Your task to perform on an android device: Check the weather Image 0: 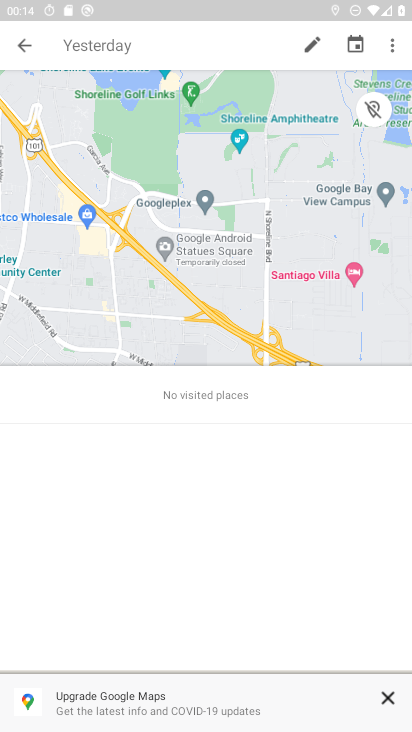
Step 0: press home button
Your task to perform on an android device: Check the weather Image 1: 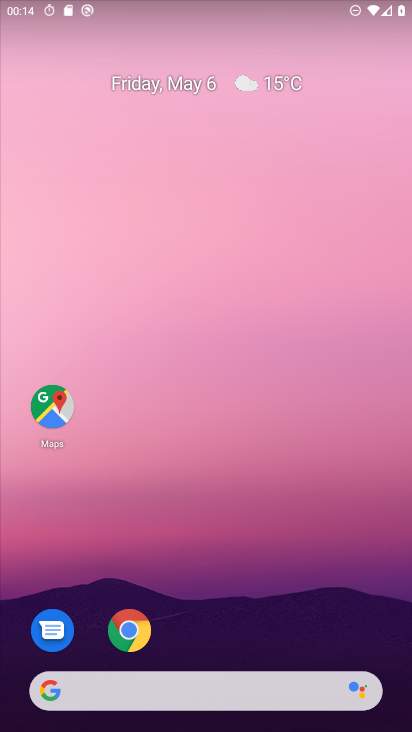
Step 1: click (274, 86)
Your task to perform on an android device: Check the weather Image 2: 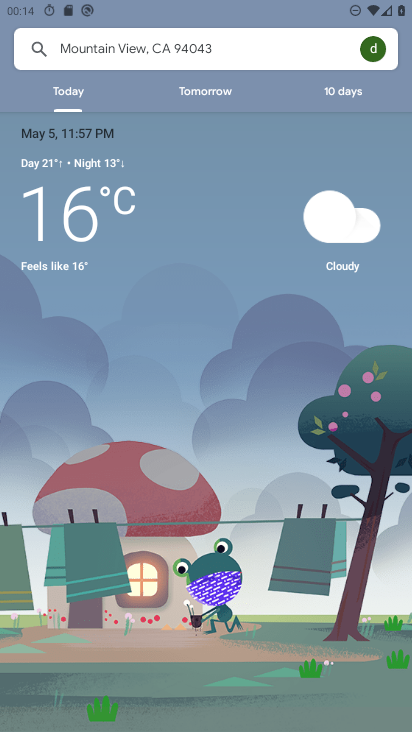
Step 2: task complete